Your task to perform on an android device: Open Chrome and go to settings Image 0: 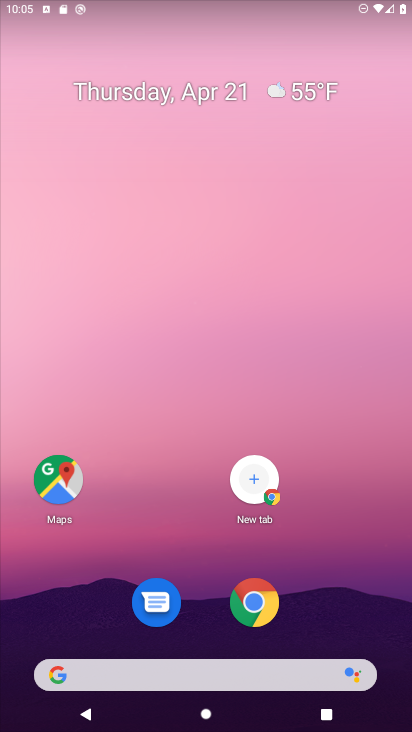
Step 0: click (262, 609)
Your task to perform on an android device: Open Chrome and go to settings Image 1: 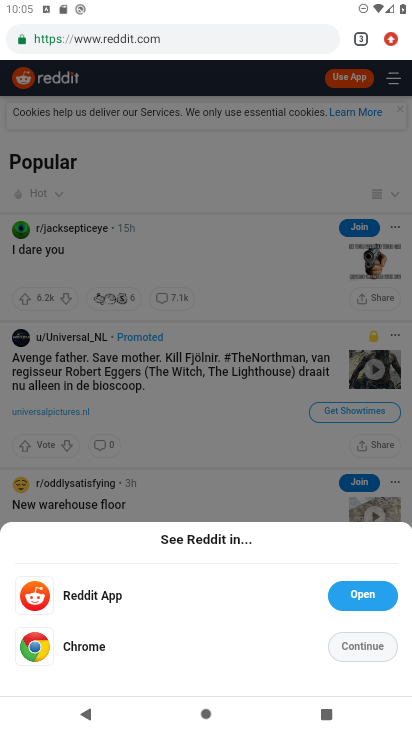
Step 1: click (390, 41)
Your task to perform on an android device: Open Chrome and go to settings Image 2: 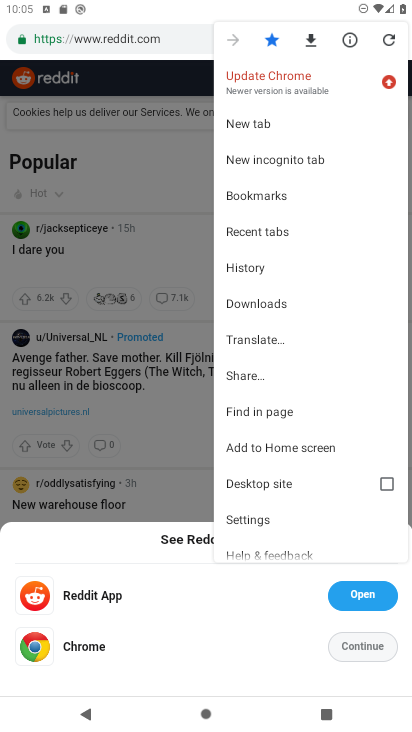
Step 2: click (273, 531)
Your task to perform on an android device: Open Chrome and go to settings Image 3: 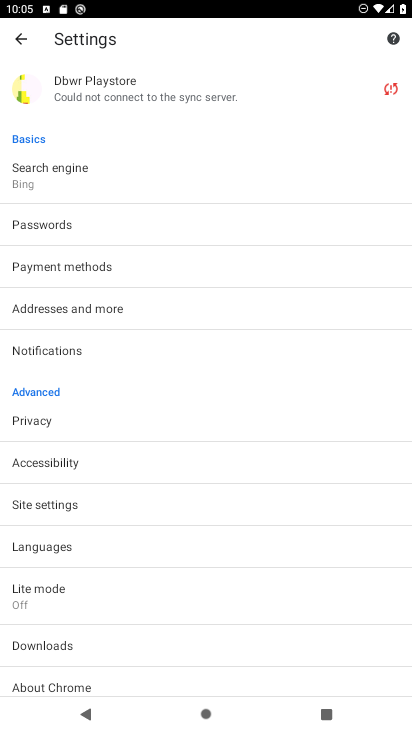
Step 3: task complete